Your task to perform on an android device: See recent photos Image 0: 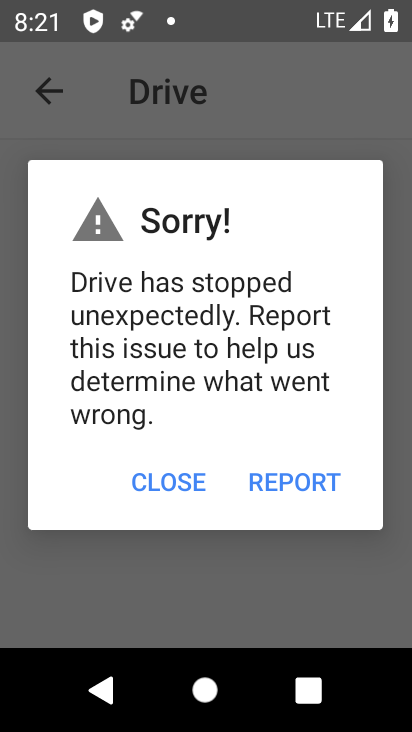
Step 0: press home button
Your task to perform on an android device: See recent photos Image 1: 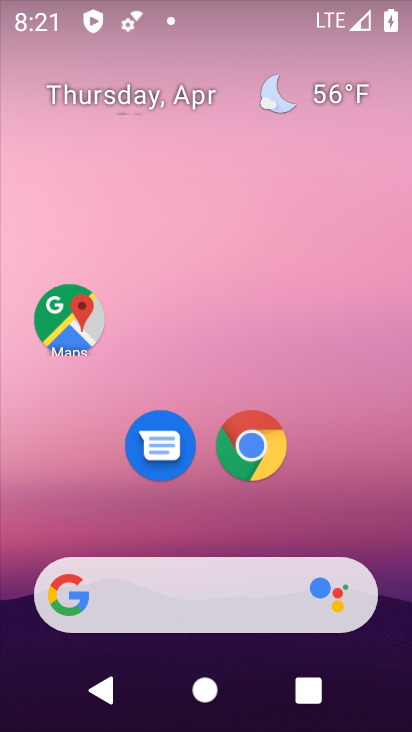
Step 1: drag from (355, 538) to (291, 1)
Your task to perform on an android device: See recent photos Image 2: 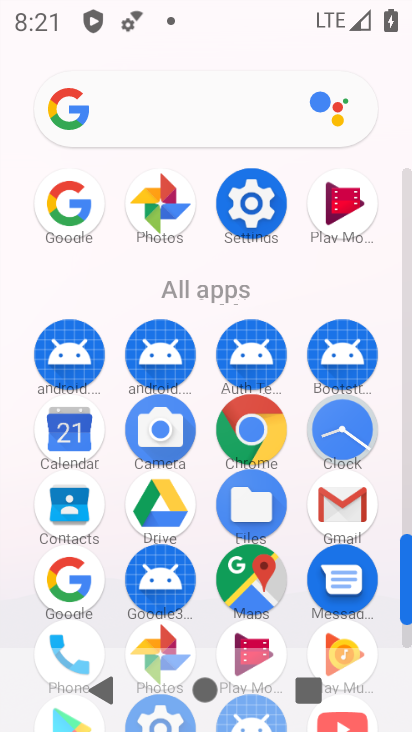
Step 2: click (143, 216)
Your task to perform on an android device: See recent photos Image 3: 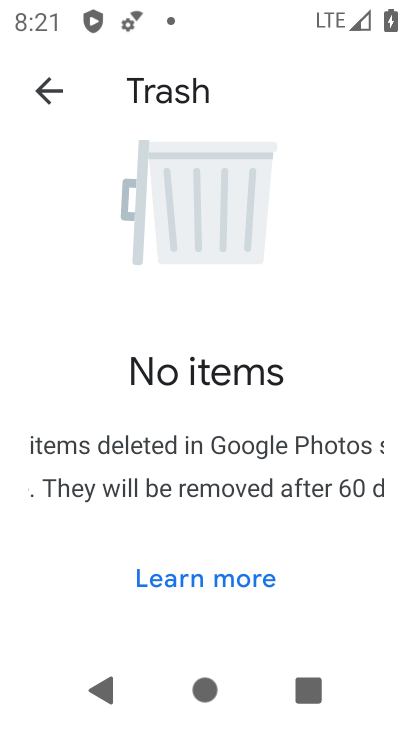
Step 3: click (40, 88)
Your task to perform on an android device: See recent photos Image 4: 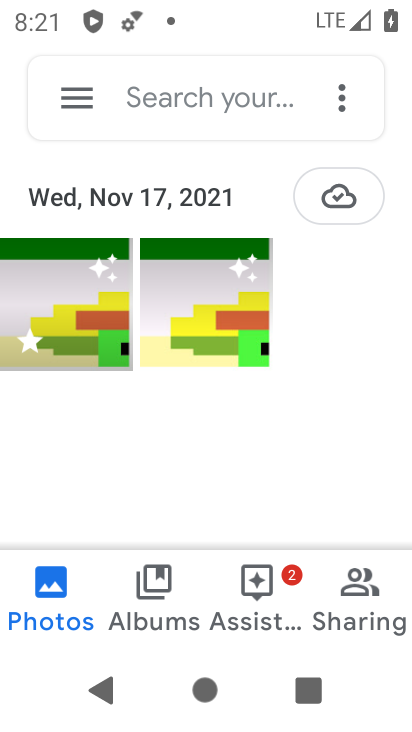
Step 4: click (66, 97)
Your task to perform on an android device: See recent photos Image 5: 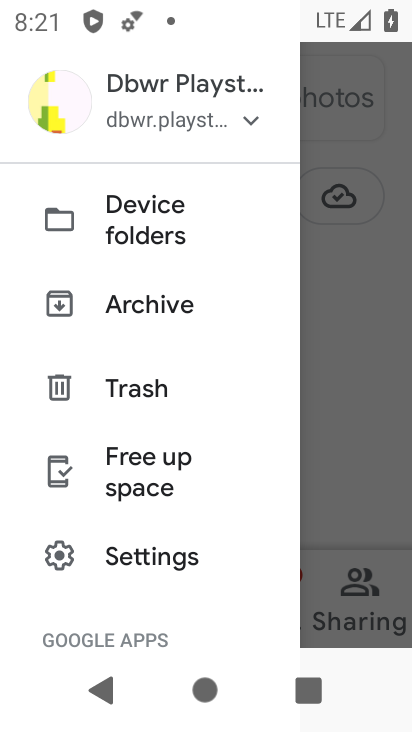
Step 5: task complete